Your task to perform on an android device: add a contact Image 0: 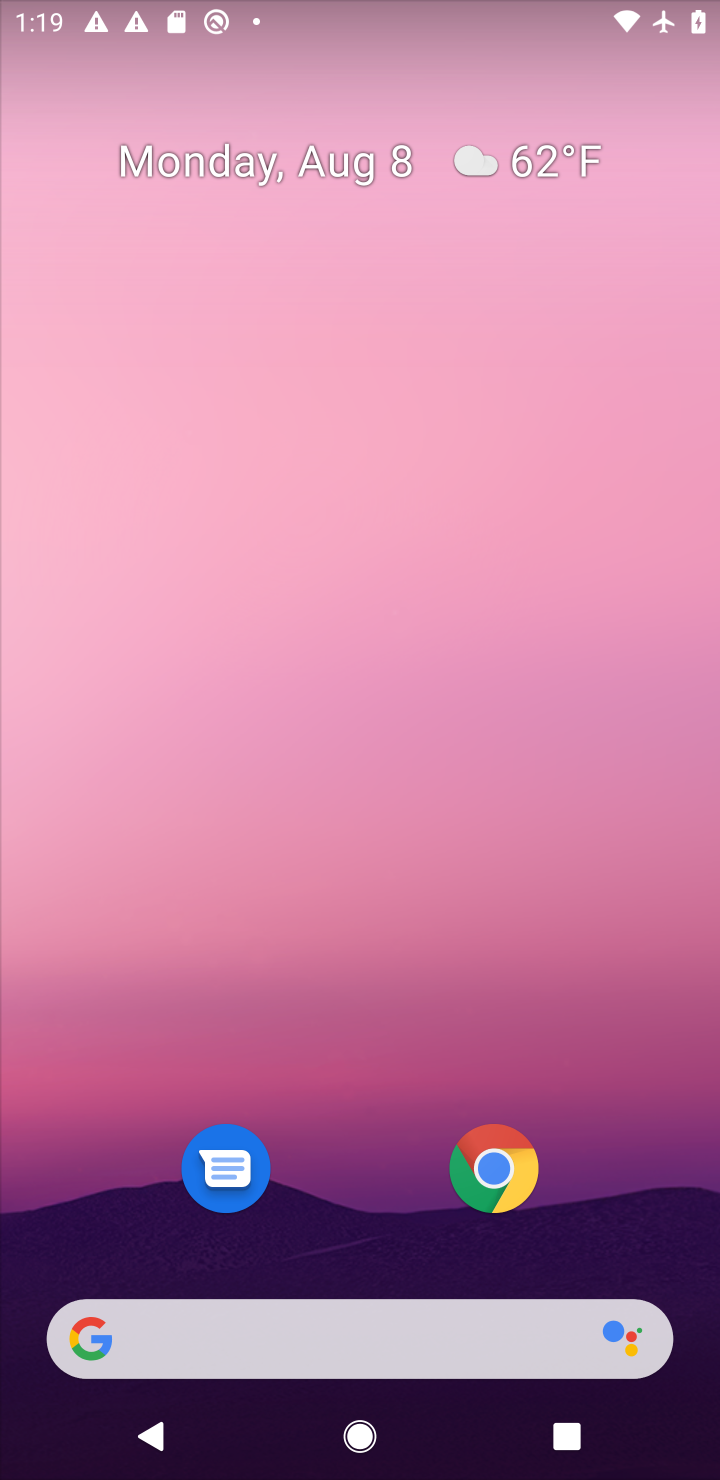
Step 0: drag from (385, 1271) to (288, 68)
Your task to perform on an android device: add a contact Image 1: 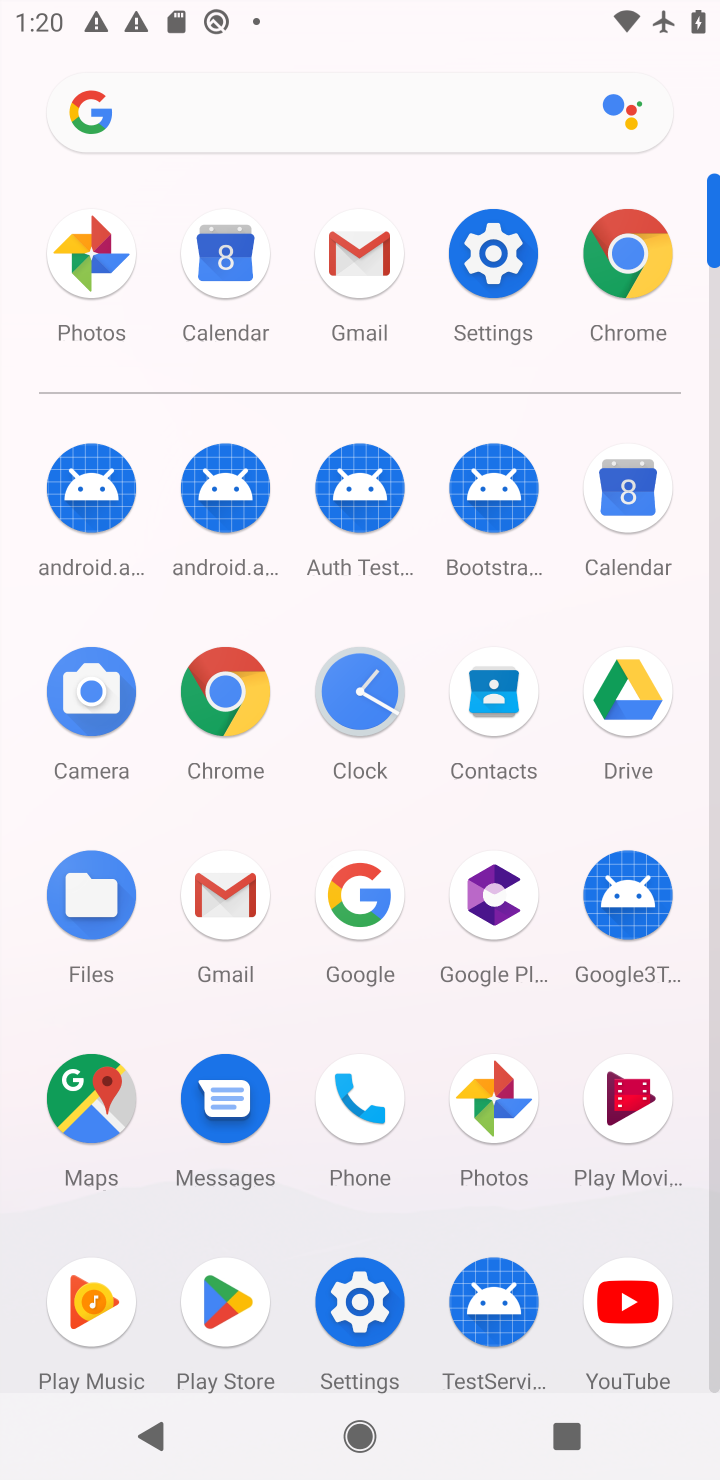
Step 1: click (475, 241)
Your task to perform on an android device: add a contact Image 2: 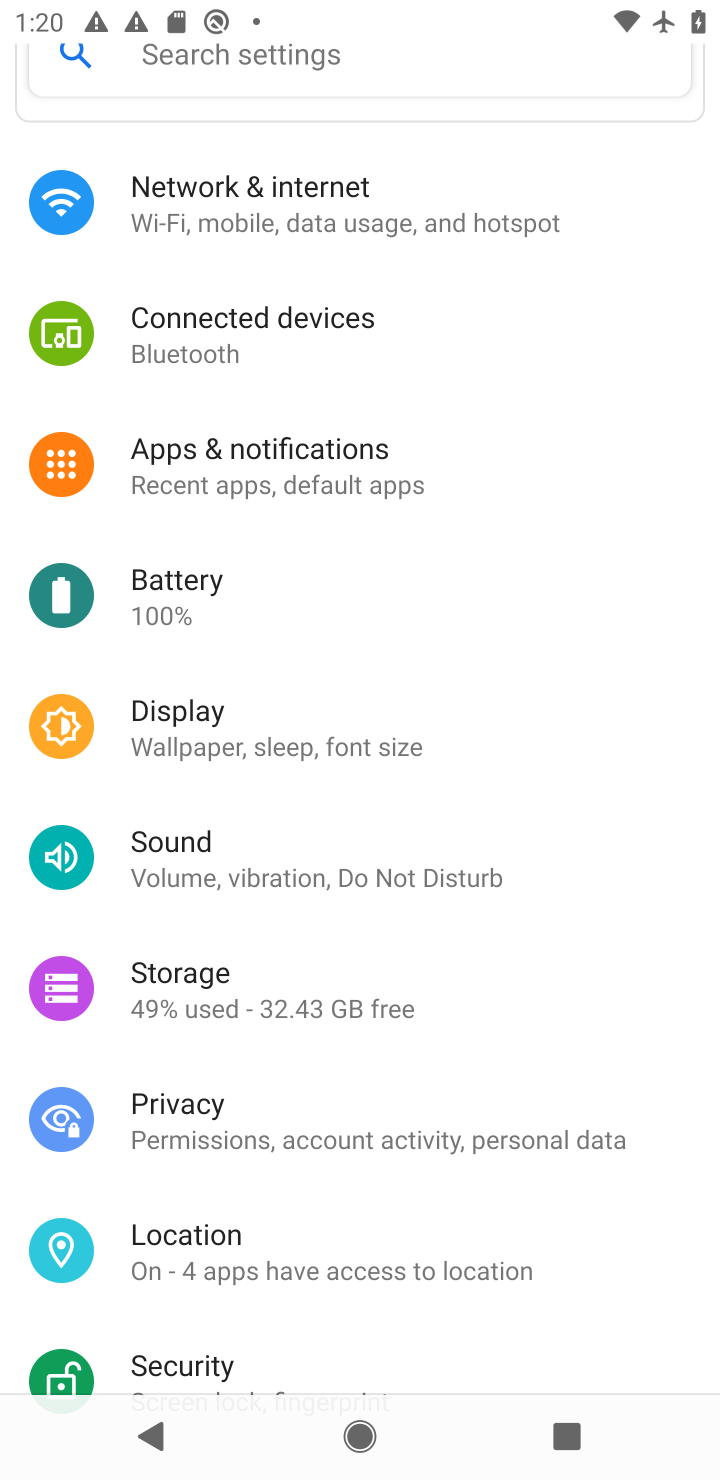
Step 2: task complete